Your task to perform on an android device: Open Yahoo.com Image 0: 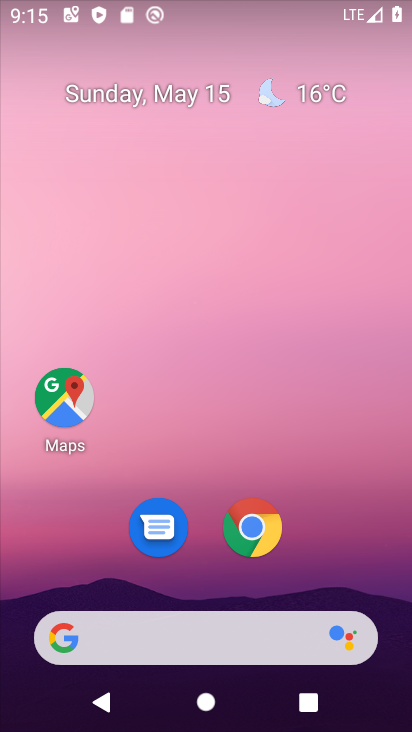
Step 0: click (251, 535)
Your task to perform on an android device: Open Yahoo.com Image 1: 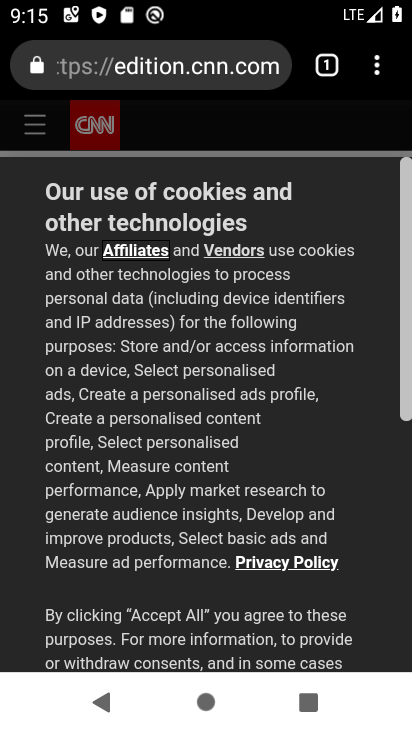
Step 1: click (103, 73)
Your task to perform on an android device: Open Yahoo.com Image 2: 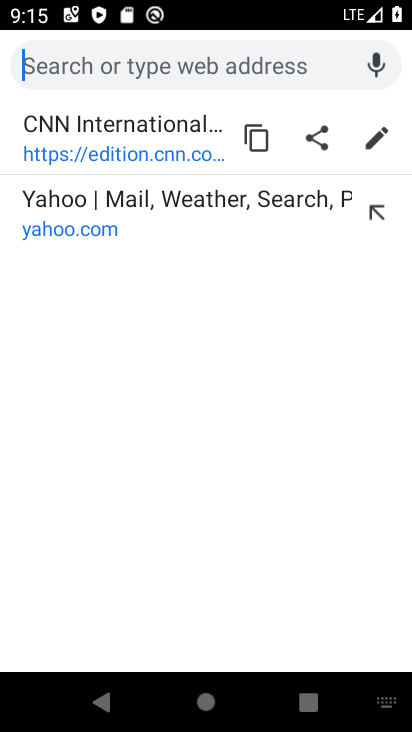
Step 2: click (60, 217)
Your task to perform on an android device: Open Yahoo.com Image 3: 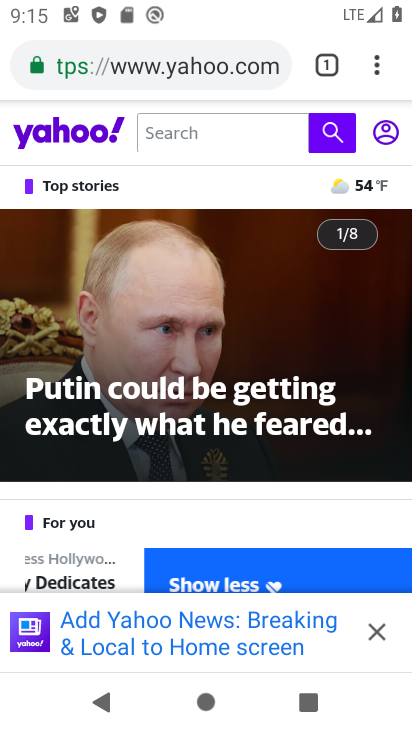
Step 3: task complete